Your task to perform on an android device: open app "Microsoft Authenticator" (install if not already installed) Image 0: 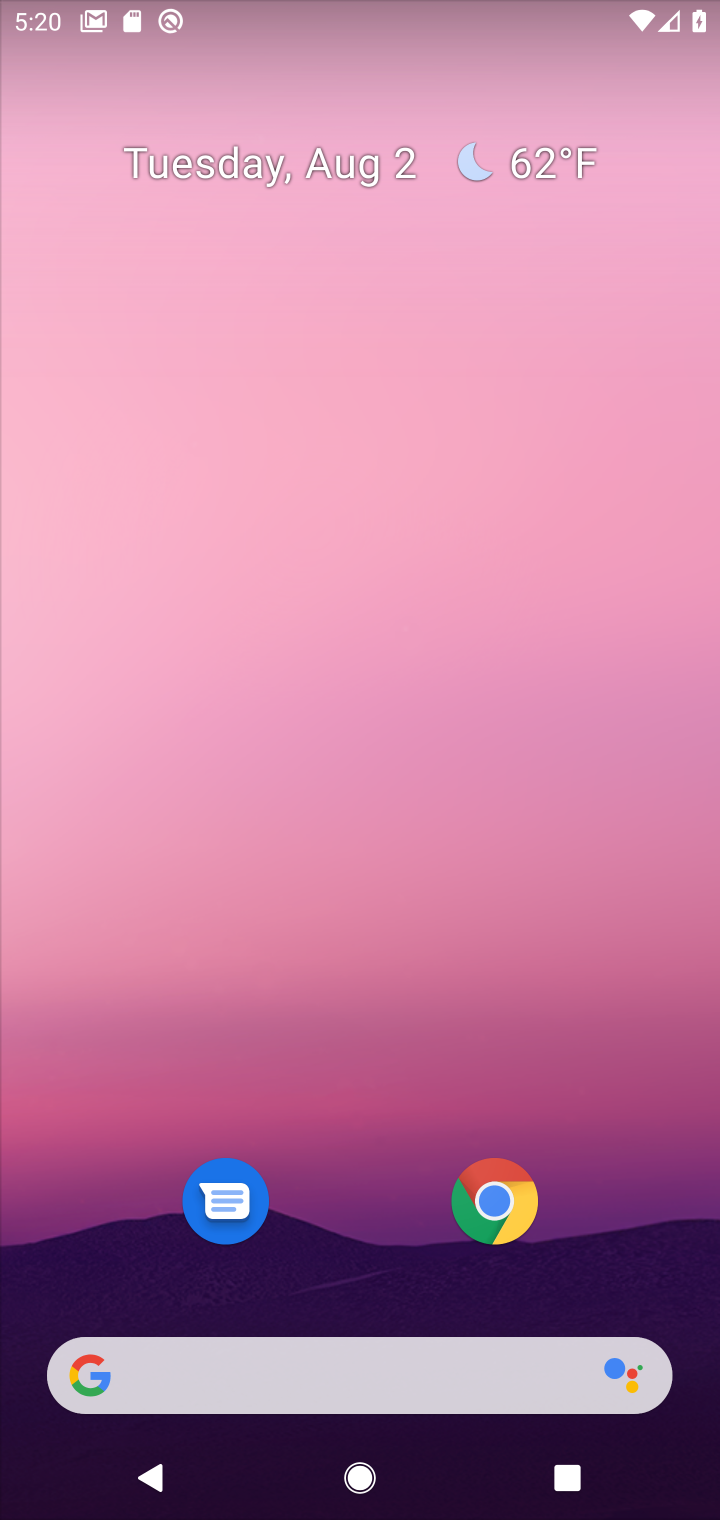
Step 0: drag from (362, 1204) to (385, 303)
Your task to perform on an android device: open app "Microsoft Authenticator" (install if not already installed) Image 1: 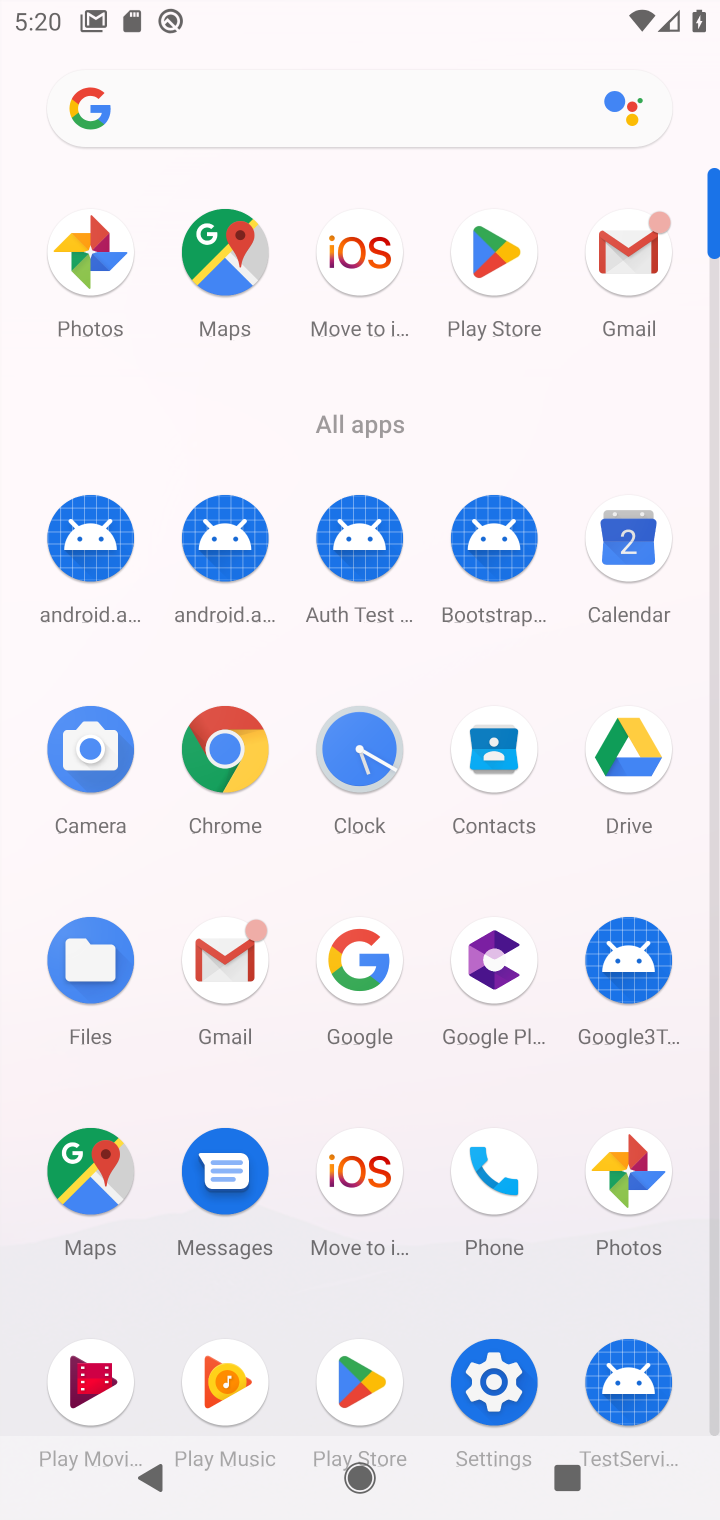
Step 1: click (485, 232)
Your task to perform on an android device: open app "Microsoft Authenticator" (install if not already installed) Image 2: 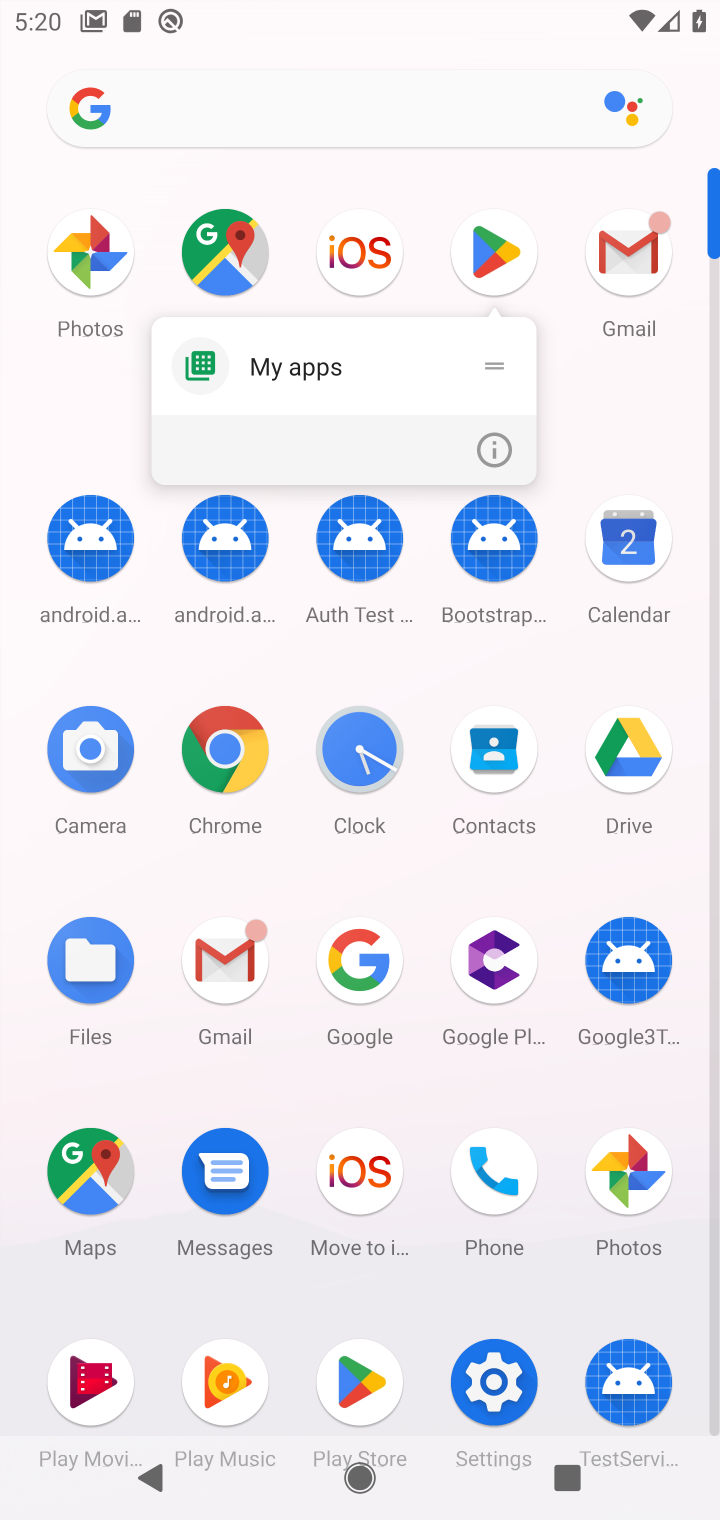
Step 2: click (473, 256)
Your task to perform on an android device: open app "Microsoft Authenticator" (install if not already installed) Image 3: 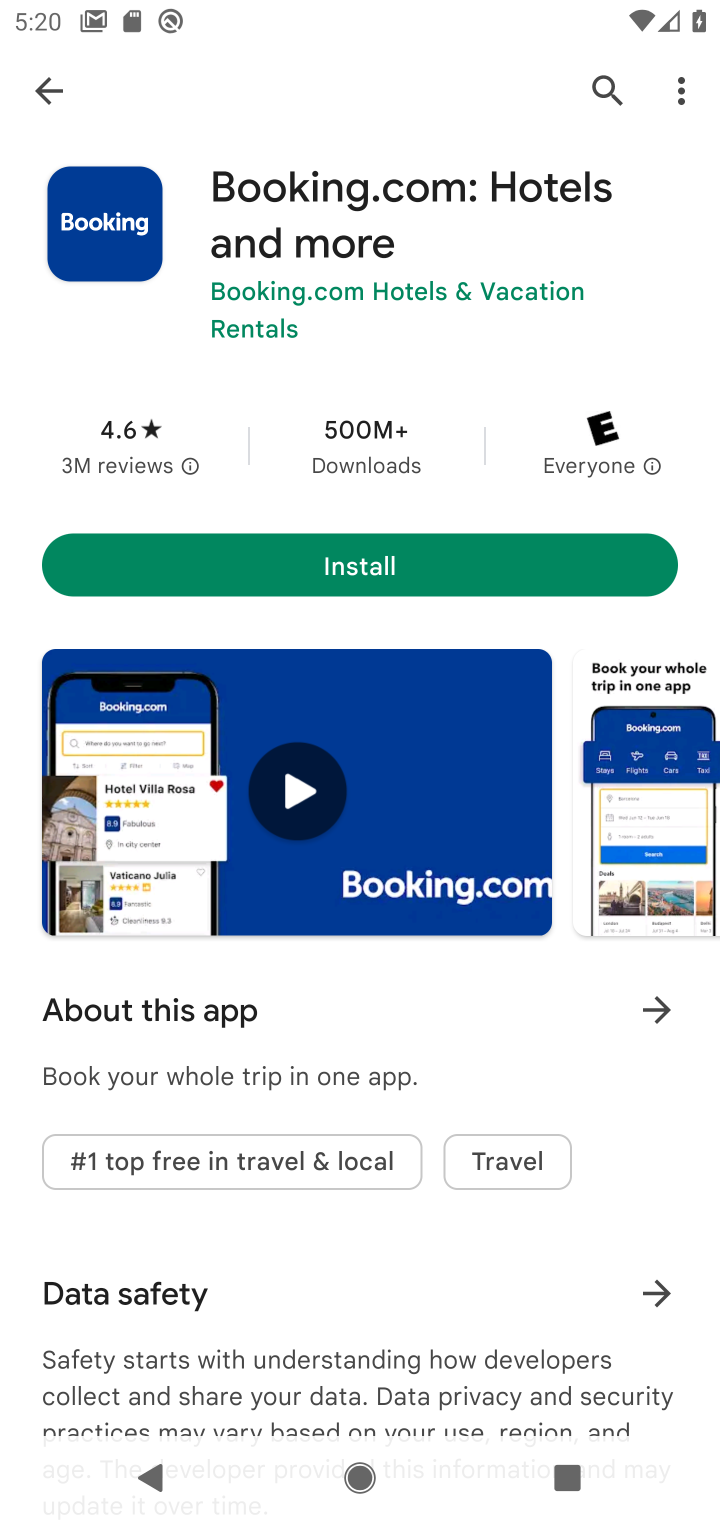
Step 3: click (606, 83)
Your task to perform on an android device: open app "Microsoft Authenticator" (install if not already installed) Image 4: 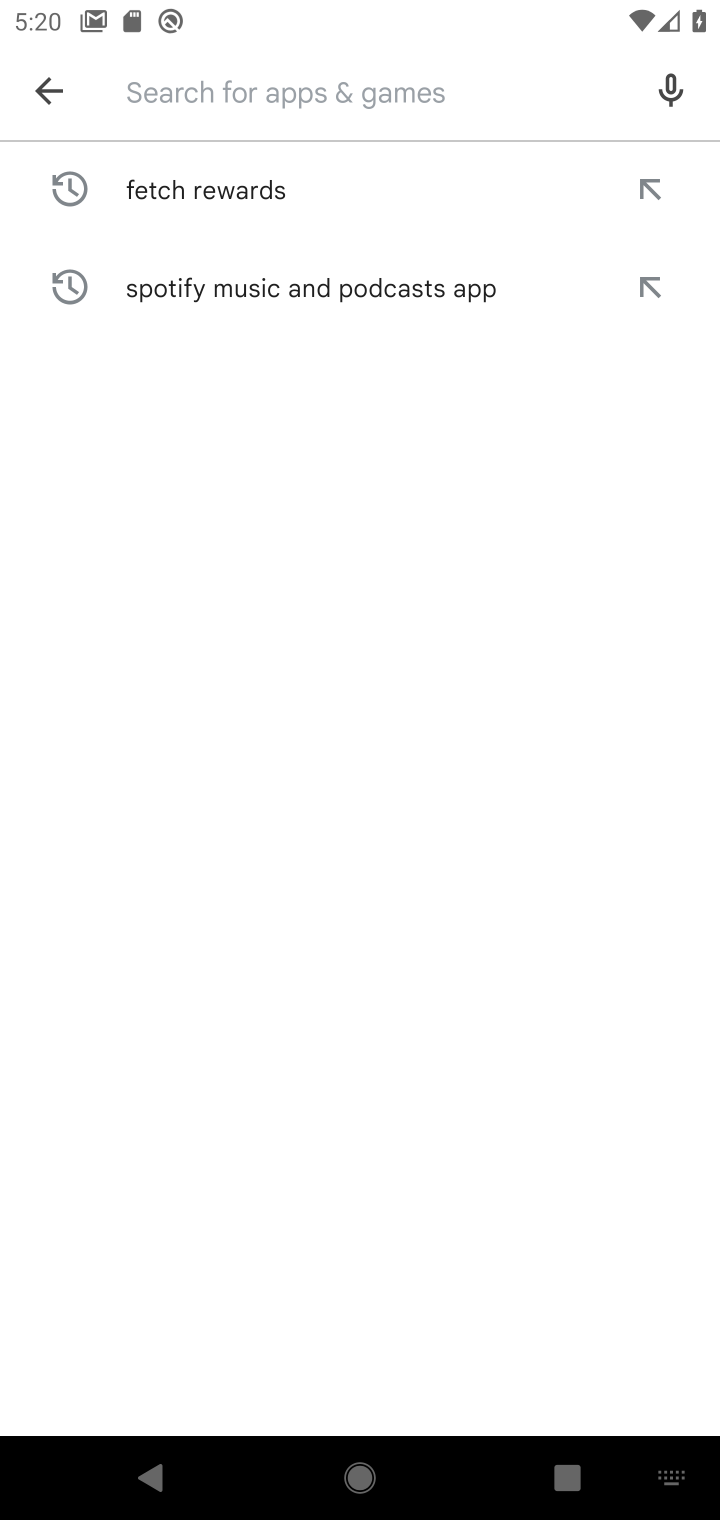
Step 4: type "Microsoft Authenticato"
Your task to perform on an android device: open app "Microsoft Authenticator" (install if not already installed) Image 5: 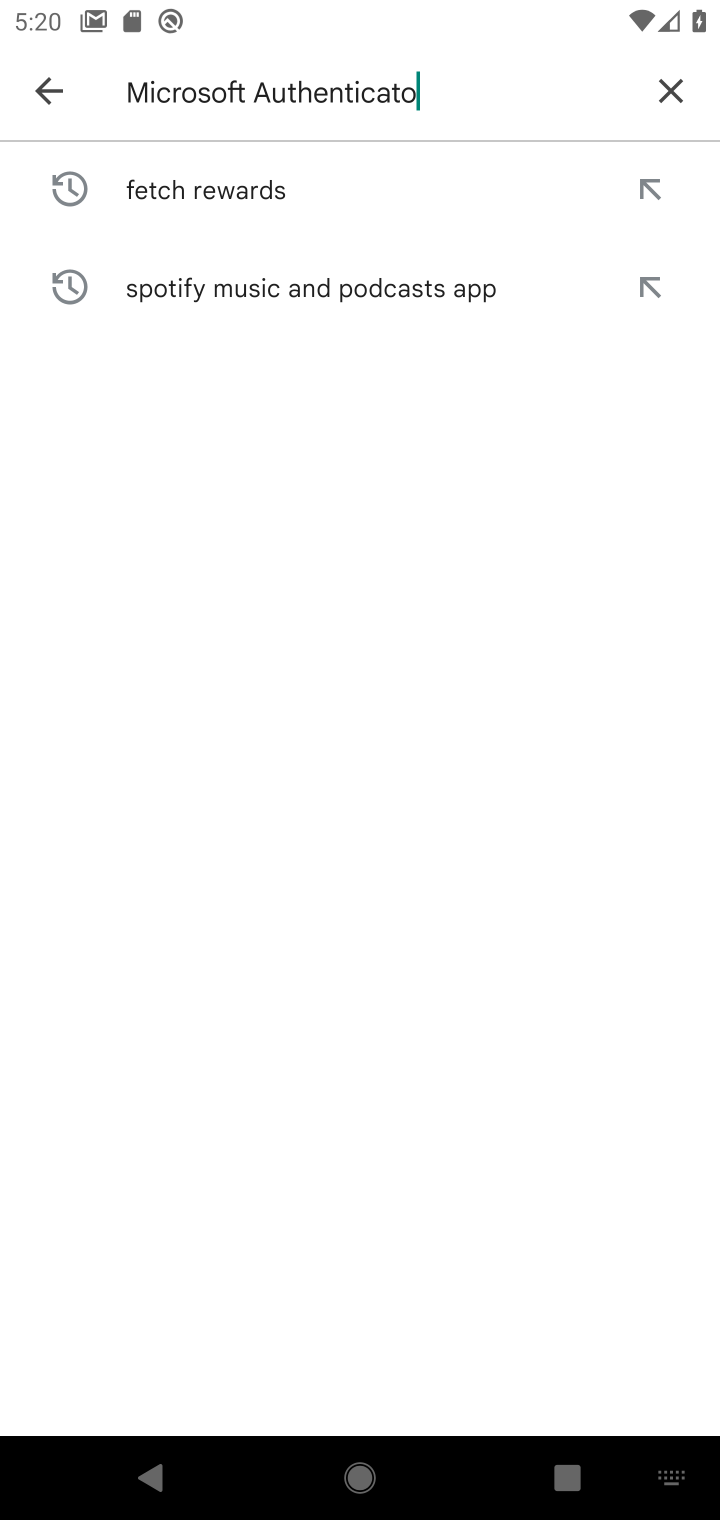
Step 5: type ""
Your task to perform on an android device: open app "Microsoft Authenticator" (install if not already installed) Image 6: 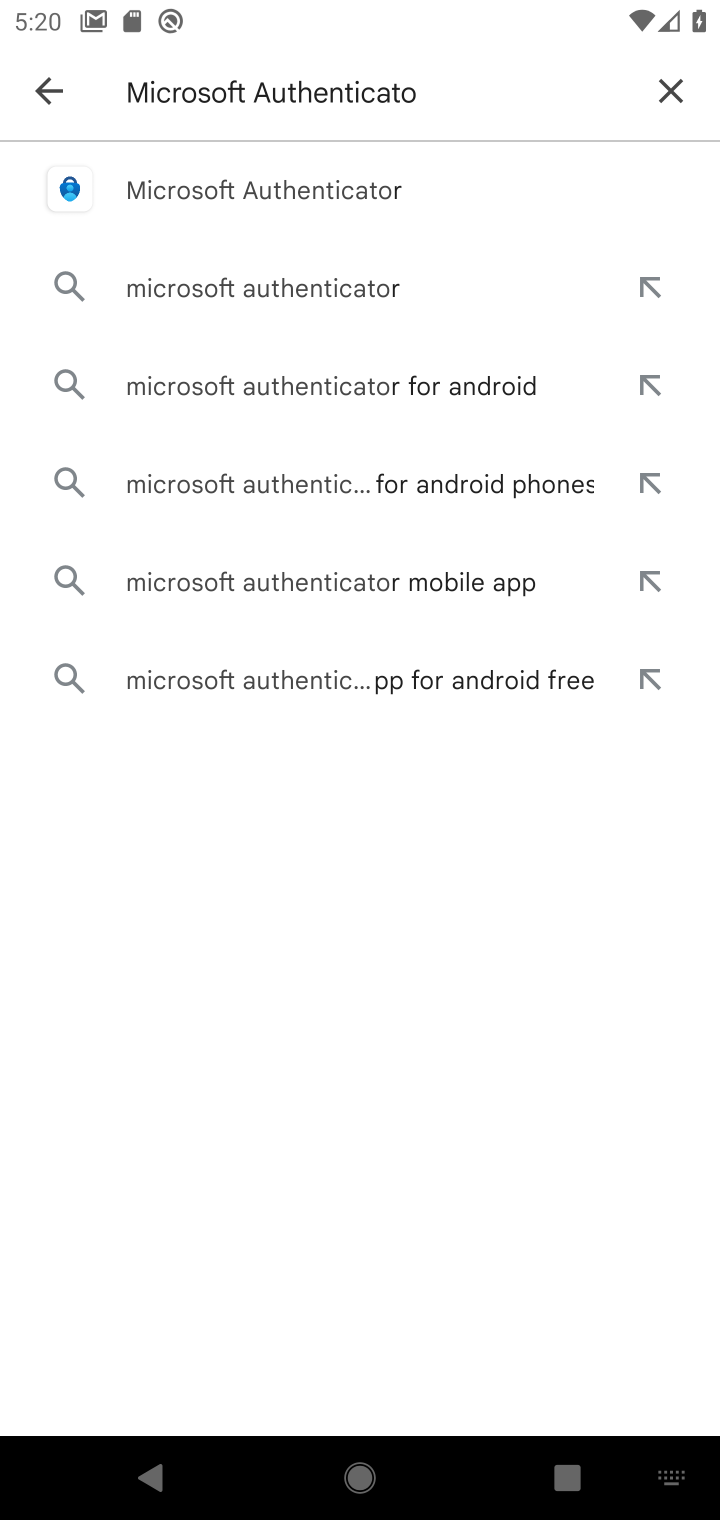
Step 6: click (236, 171)
Your task to perform on an android device: open app "Microsoft Authenticator" (install if not already installed) Image 7: 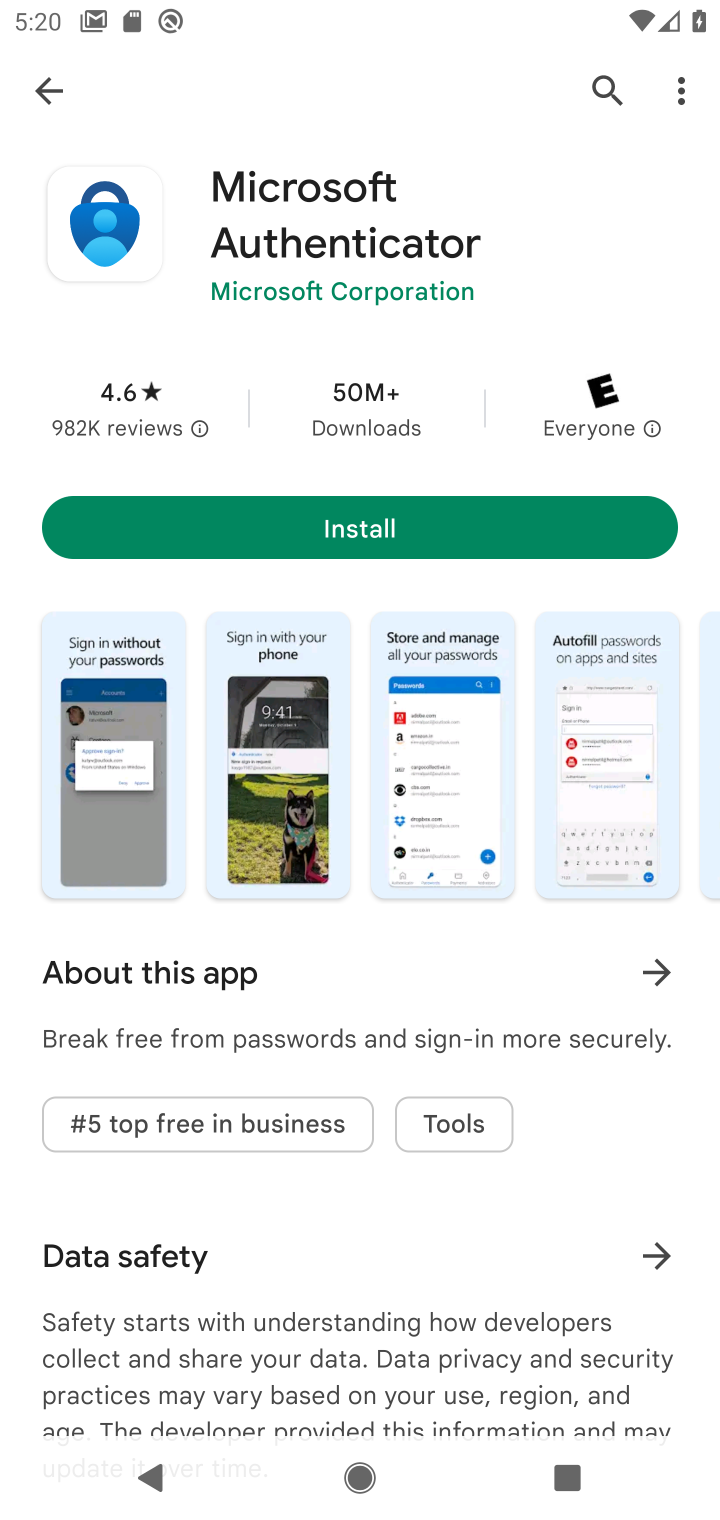
Step 7: click (349, 530)
Your task to perform on an android device: open app "Microsoft Authenticator" (install if not already installed) Image 8: 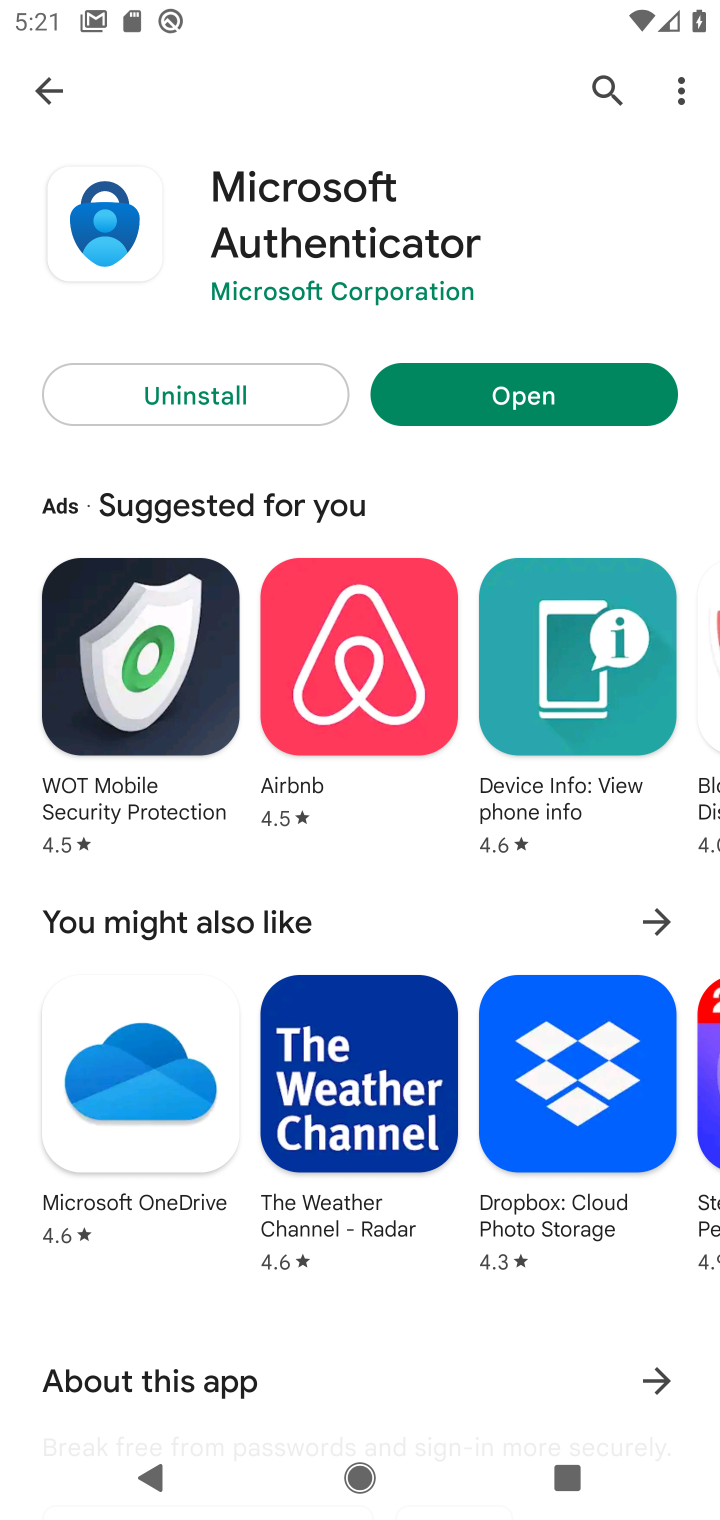
Step 8: click (510, 384)
Your task to perform on an android device: open app "Microsoft Authenticator" (install if not already installed) Image 9: 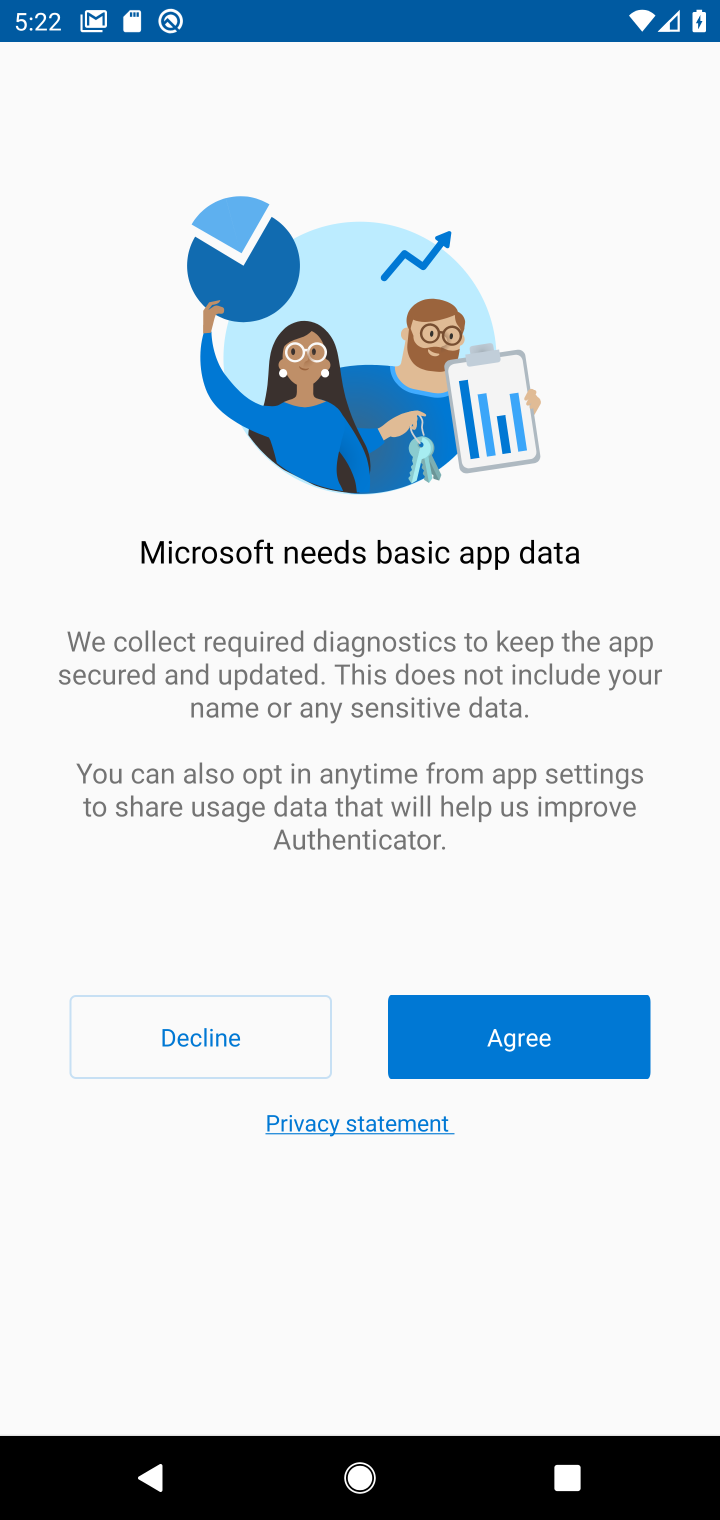
Step 9: task complete